Your task to perform on an android device: change the clock display to show seconds Image 0: 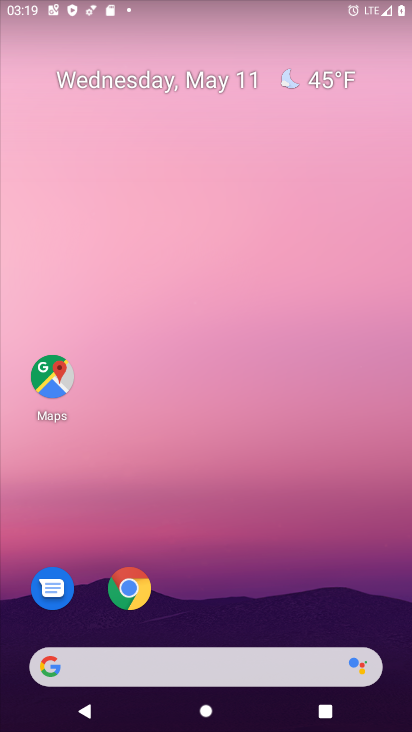
Step 0: drag from (229, 627) to (239, 191)
Your task to perform on an android device: change the clock display to show seconds Image 1: 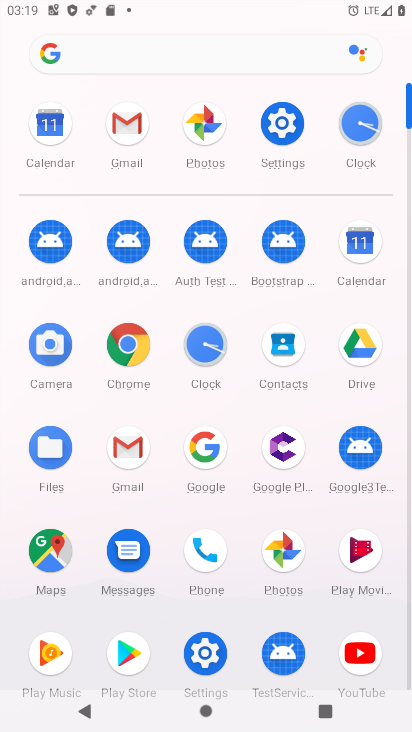
Step 1: click (334, 137)
Your task to perform on an android device: change the clock display to show seconds Image 2: 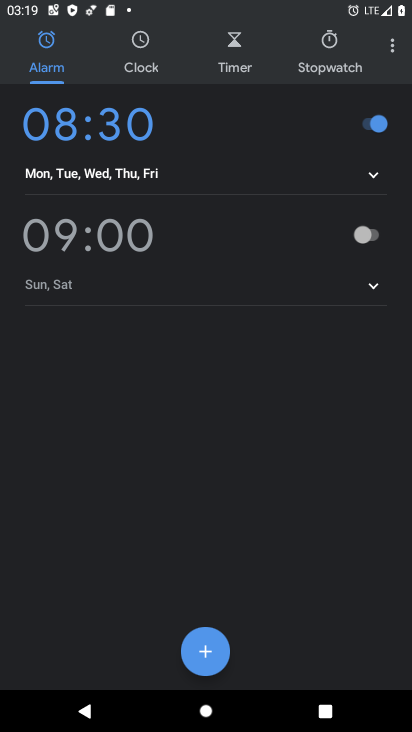
Step 2: click (399, 50)
Your task to perform on an android device: change the clock display to show seconds Image 3: 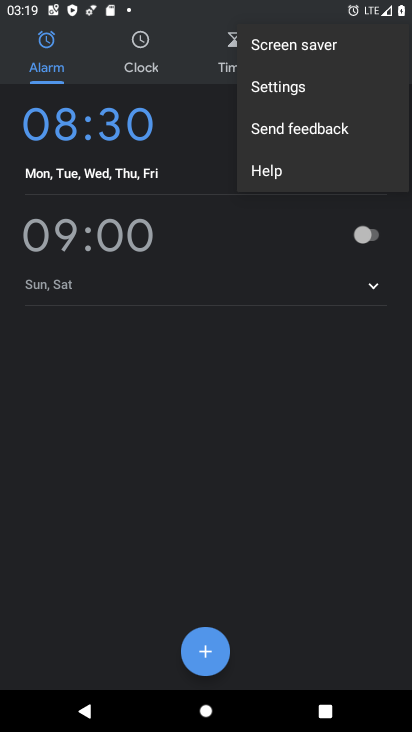
Step 3: click (347, 84)
Your task to perform on an android device: change the clock display to show seconds Image 4: 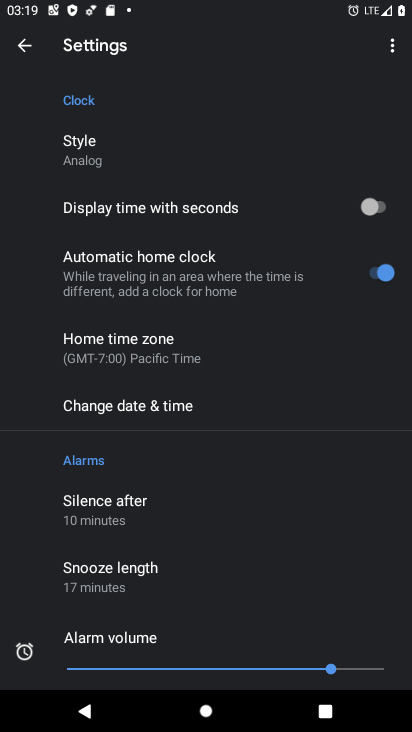
Step 4: click (385, 197)
Your task to perform on an android device: change the clock display to show seconds Image 5: 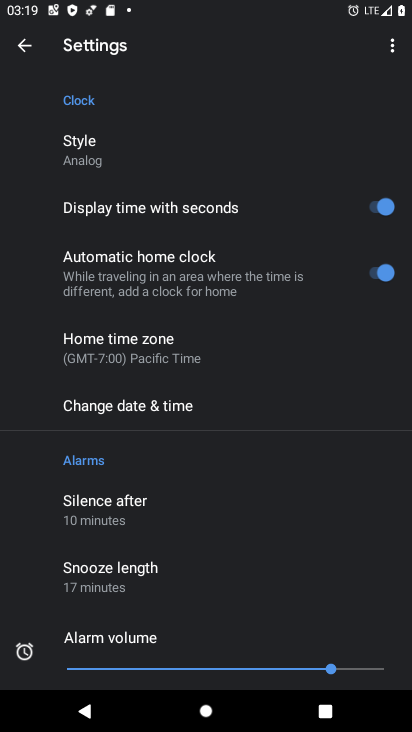
Step 5: task complete